Your task to perform on an android device: What's the weather going to be this weekend? Image 0: 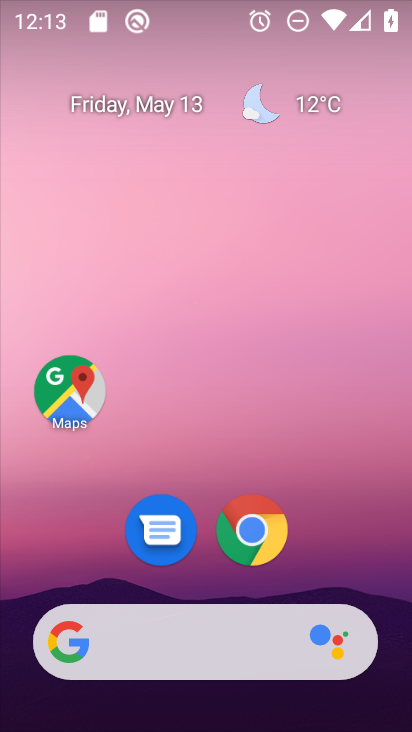
Step 0: click (316, 102)
Your task to perform on an android device: What's the weather going to be this weekend? Image 1: 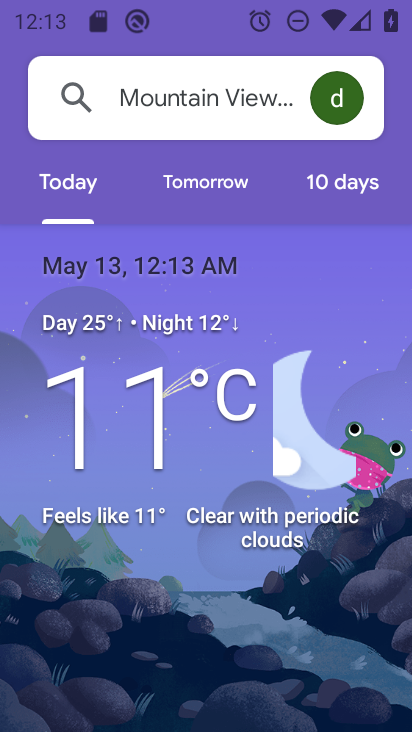
Step 1: click (343, 188)
Your task to perform on an android device: What's the weather going to be this weekend? Image 2: 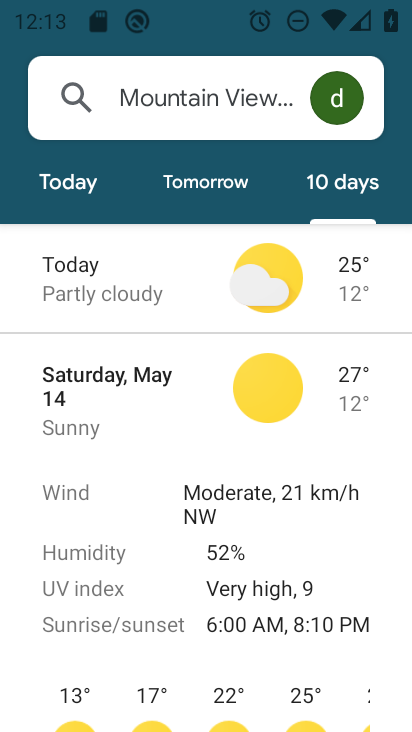
Step 2: task complete